Your task to perform on an android device: Open wifi settings Image 0: 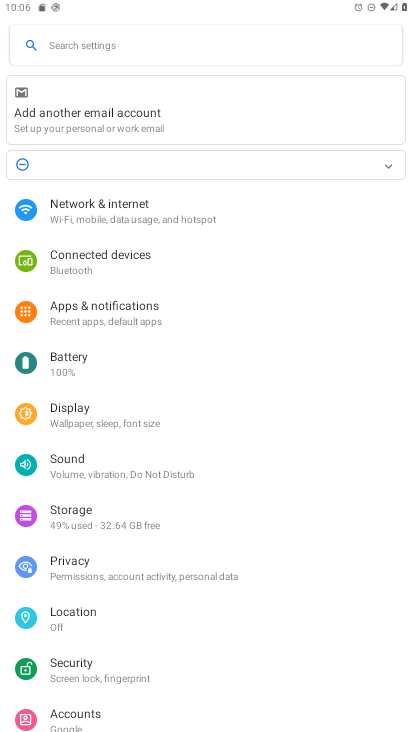
Step 0: click (154, 212)
Your task to perform on an android device: Open wifi settings Image 1: 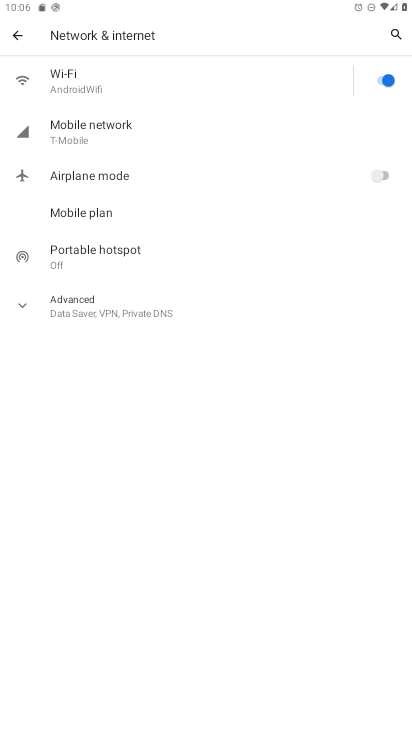
Step 1: click (116, 66)
Your task to perform on an android device: Open wifi settings Image 2: 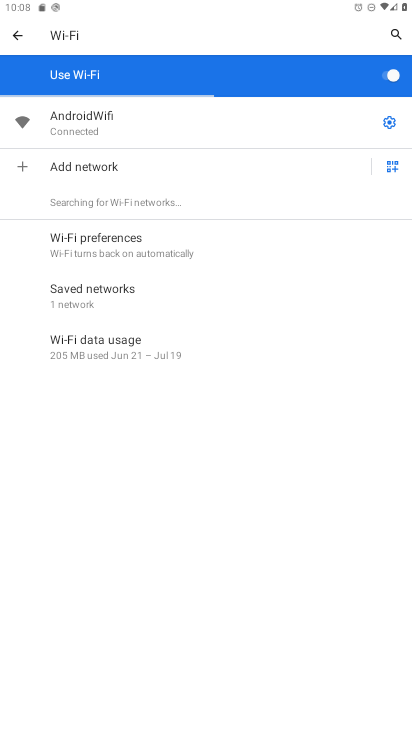
Step 2: task complete